Your task to perform on an android device: What's the weather going to be tomorrow? Image 0: 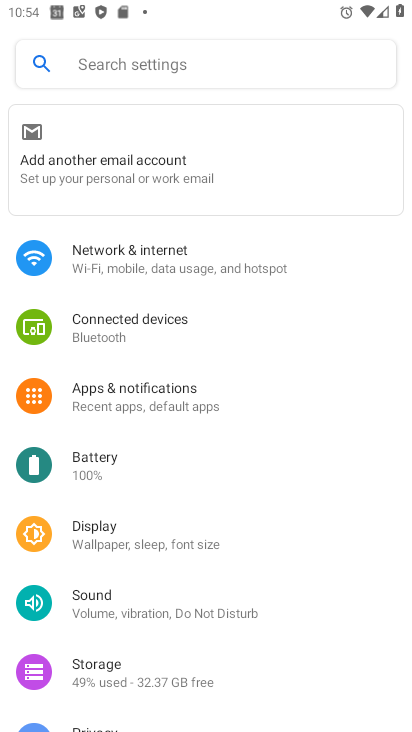
Step 0: press home button
Your task to perform on an android device: What's the weather going to be tomorrow? Image 1: 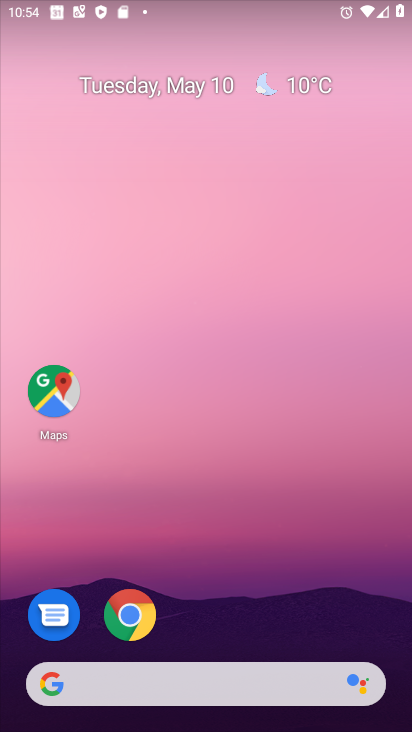
Step 1: click (312, 90)
Your task to perform on an android device: What's the weather going to be tomorrow? Image 2: 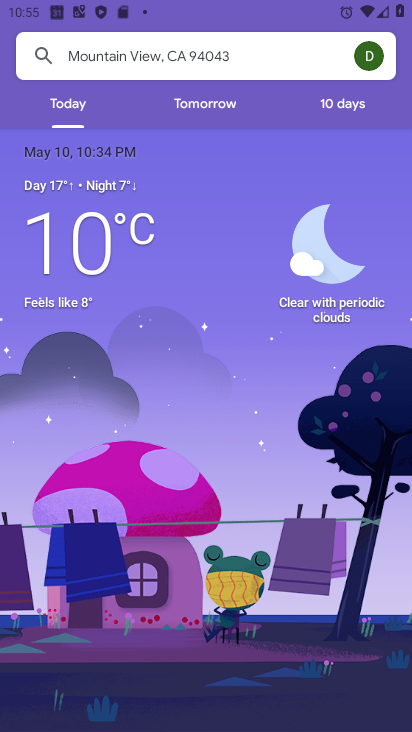
Step 2: click (216, 98)
Your task to perform on an android device: What's the weather going to be tomorrow? Image 3: 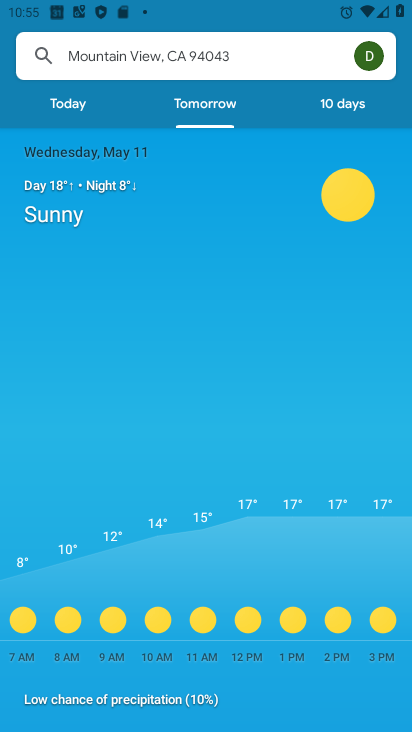
Step 3: task complete